Your task to perform on an android device: turn smart compose on in the gmail app Image 0: 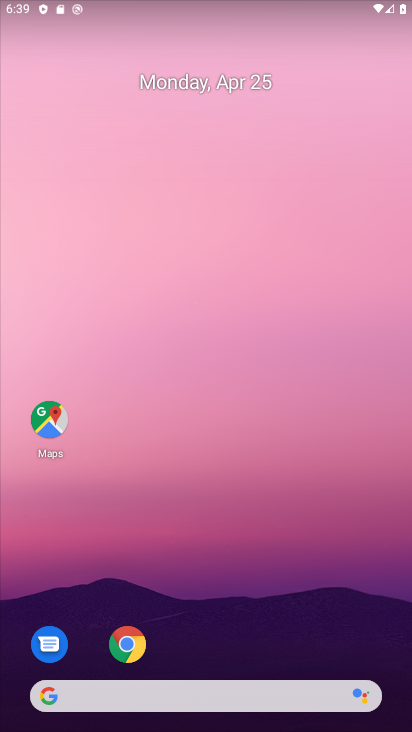
Step 0: drag from (238, 610) to (242, 122)
Your task to perform on an android device: turn smart compose on in the gmail app Image 1: 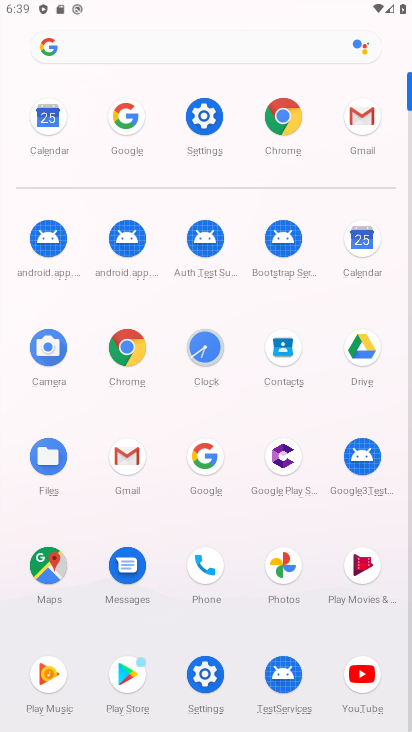
Step 1: click (129, 457)
Your task to perform on an android device: turn smart compose on in the gmail app Image 2: 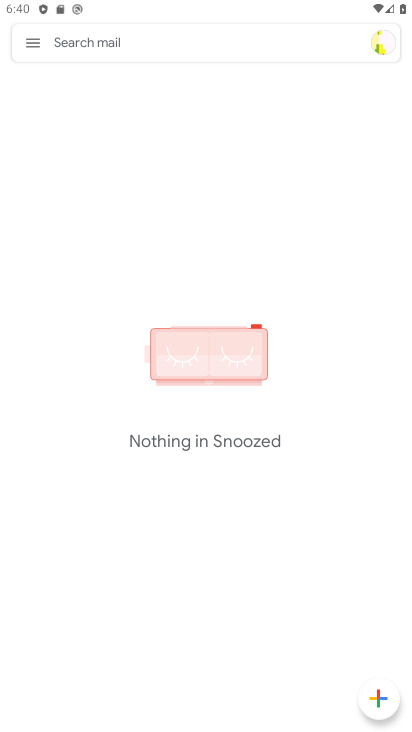
Step 2: click (33, 44)
Your task to perform on an android device: turn smart compose on in the gmail app Image 3: 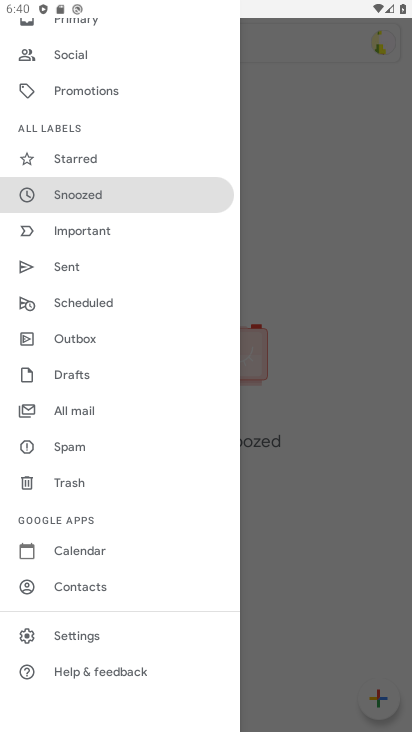
Step 3: click (80, 627)
Your task to perform on an android device: turn smart compose on in the gmail app Image 4: 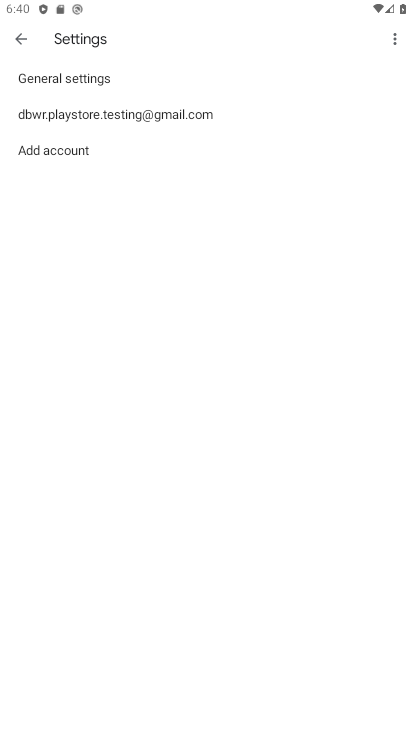
Step 4: click (125, 115)
Your task to perform on an android device: turn smart compose on in the gmail app Image 5: 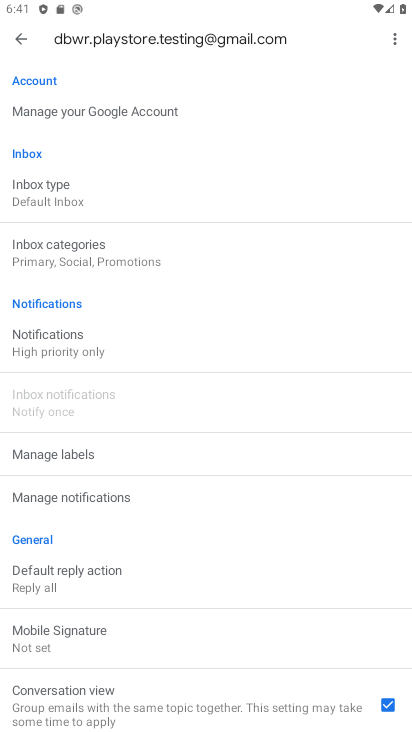
Step 5: task complete